Your task to perform on an android device: Search for "acer nitro" on newegg.com, select the first entry, add it to the cart, then select checkout. Image 0: 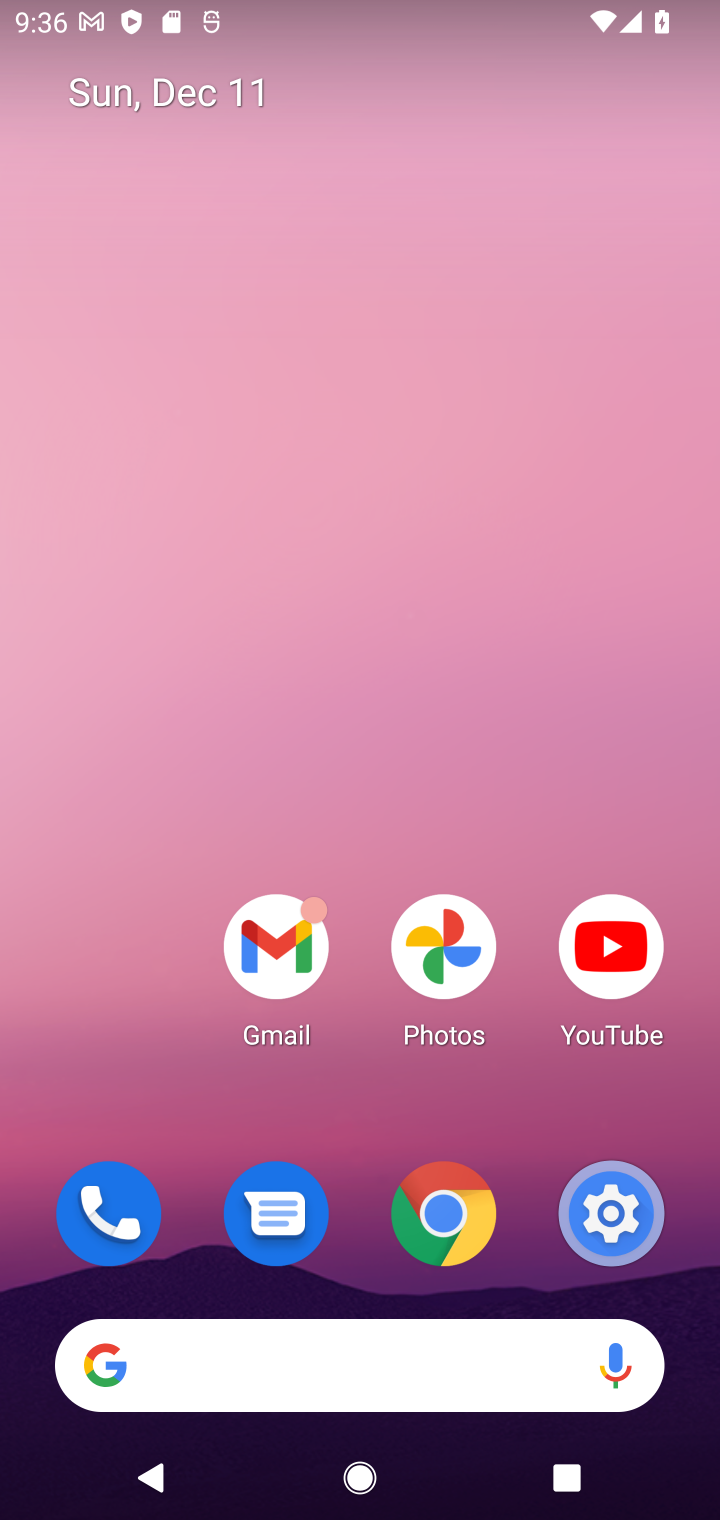
Step 0: click (444, 1354)
Your task to perform on an android device: Search for "acer nitro" on newegg.com, select the first entry, add it to the cart, then select checkout. Image 1: 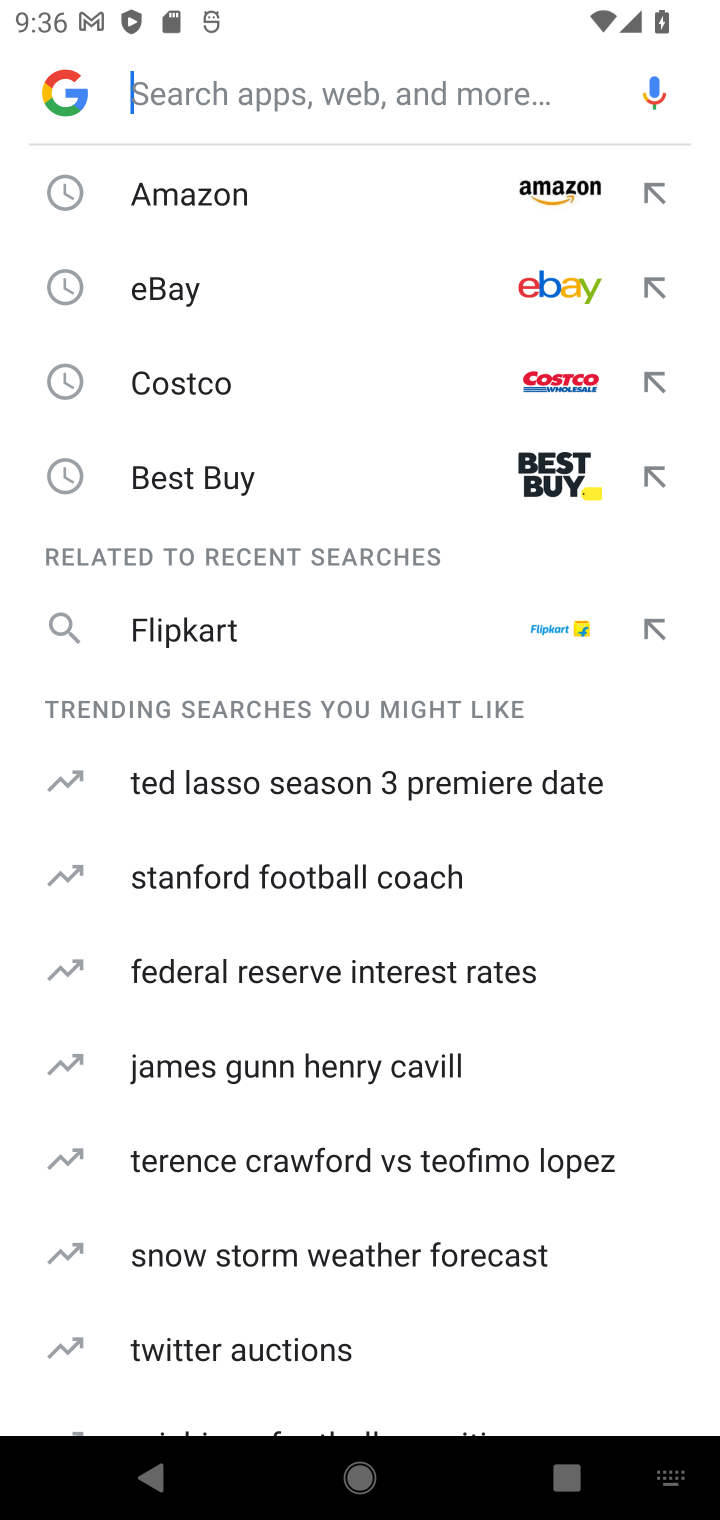
Step 1: type "newegg"
Your task to perform on an android device: Search for "acer nitro" on newegg.com, select the first entry, add it to the cart, then select checkout. Image 2: 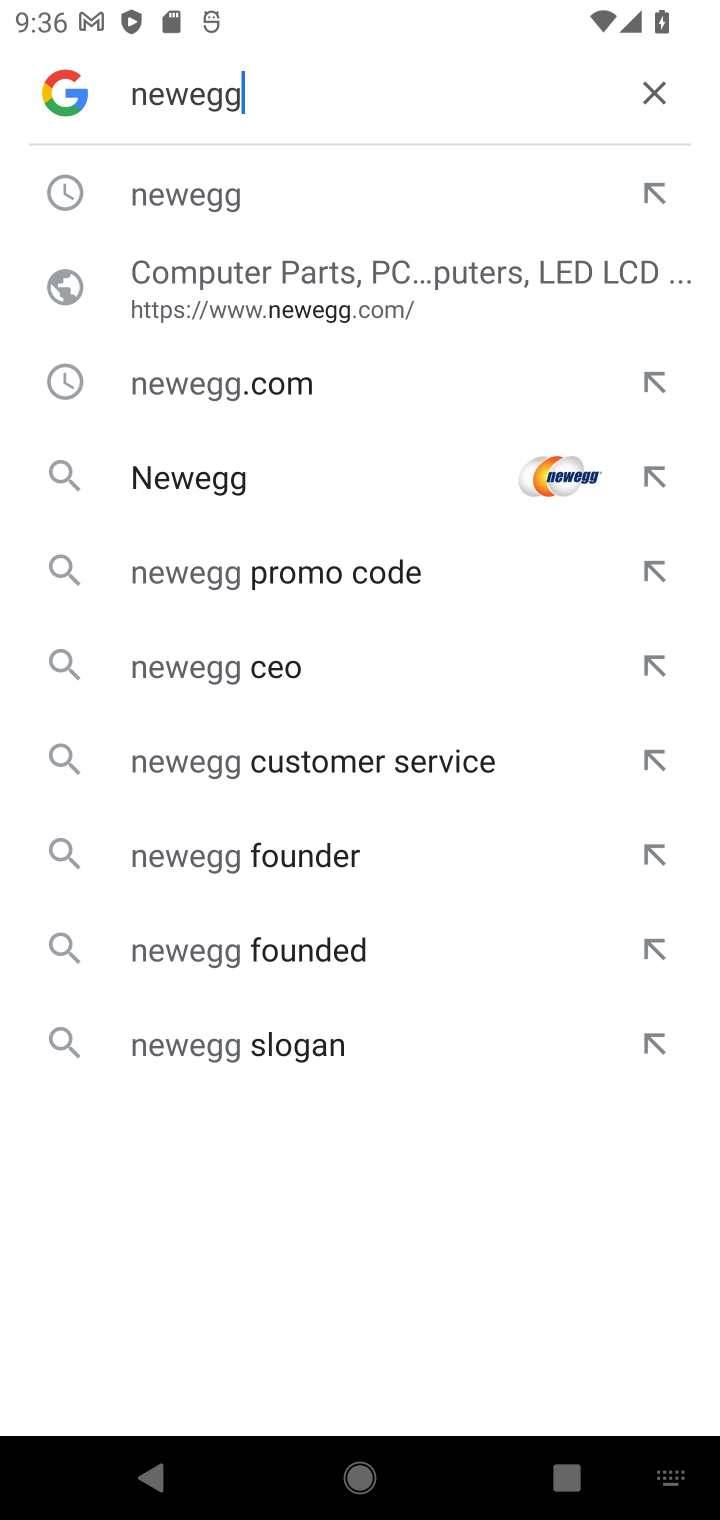
Step 2: click (207, 184)
Your task to perform on an android device: Search for "acer nitro" on newegg.com, select the first entry, add it to the cart, then select checkout. Image 3: 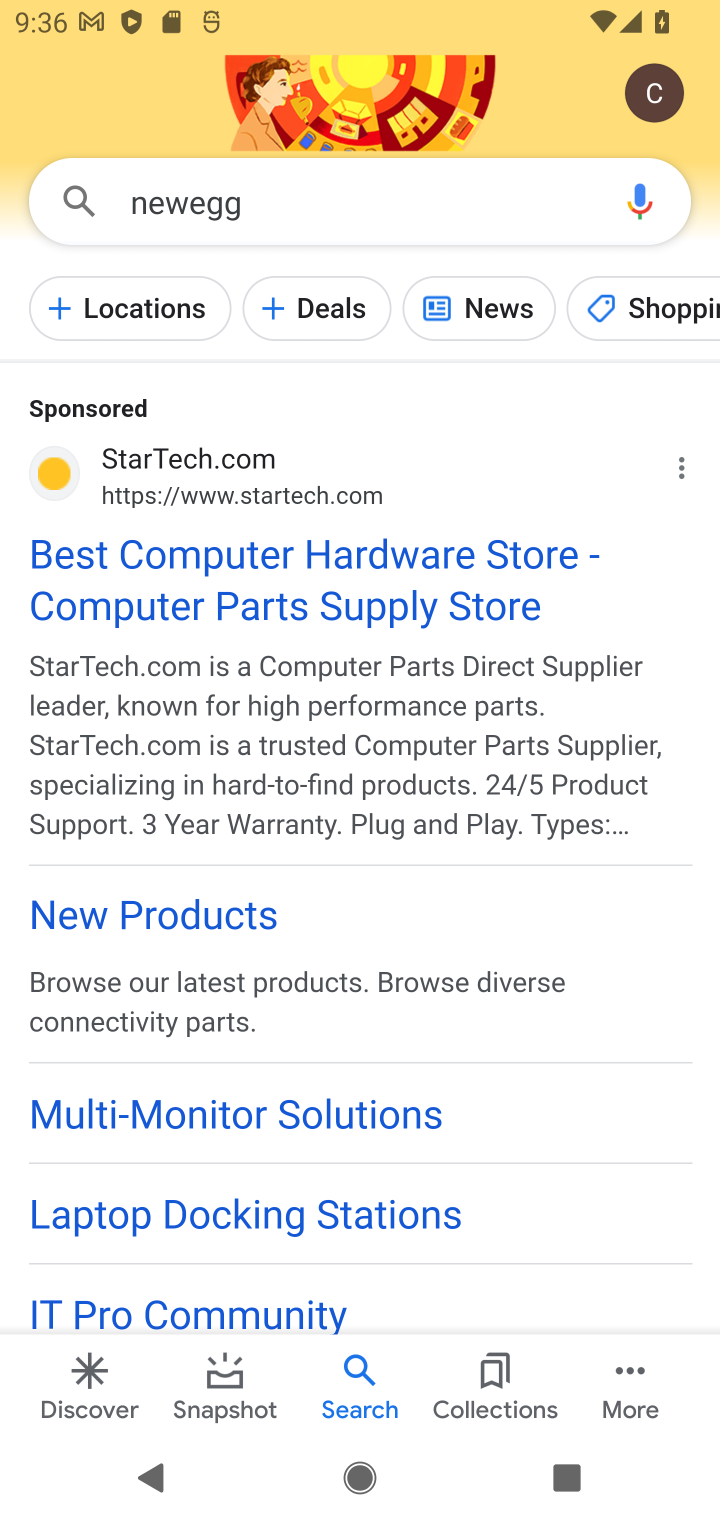
Step 3: click (159, 614)
Your task to perform on an android device: Search for "acer nitro" on newegg.com, select the first entry, add it to the cart, then select checkout. Image 4: 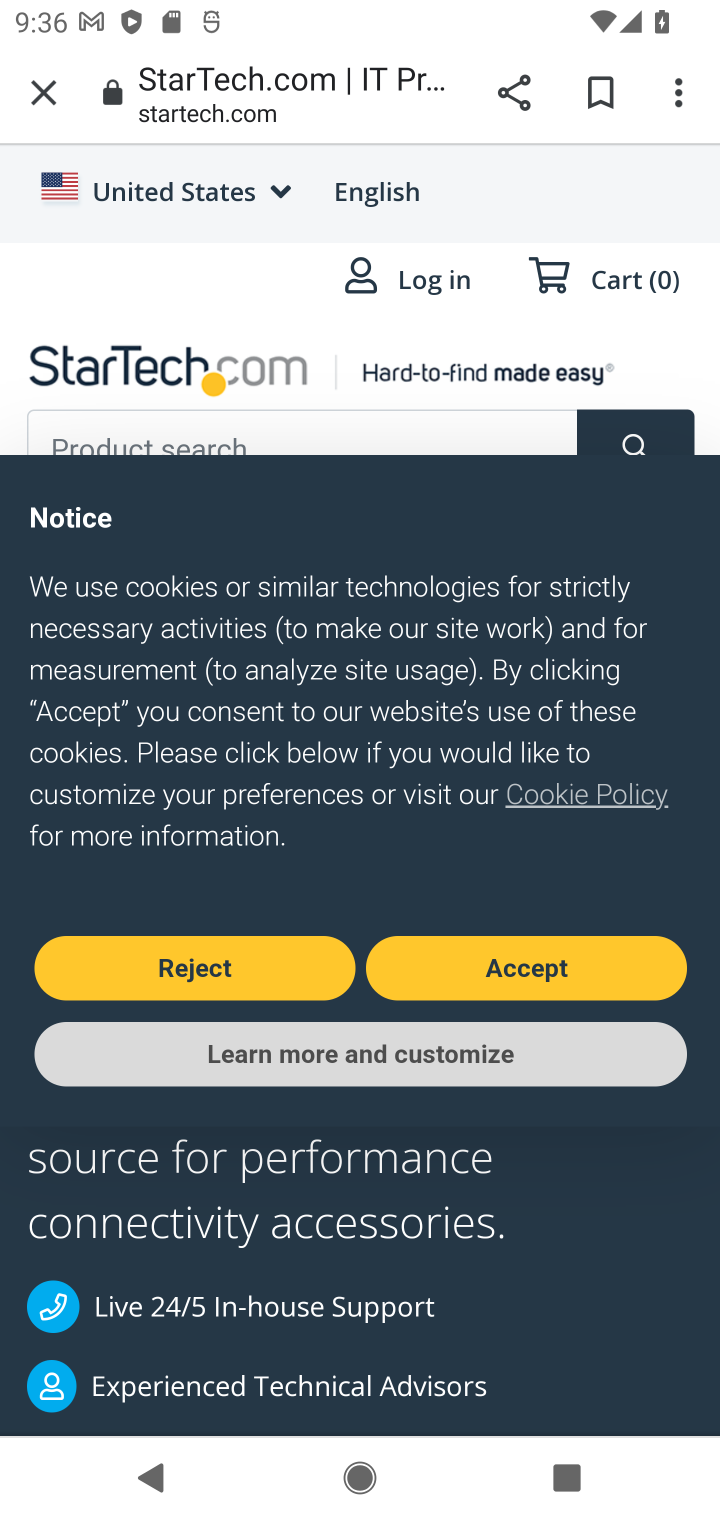
Step 4: click (20, 109)
Your task to perform on an android device: Search for "acer nitro" on newegg.com, select the first entry, add it to the cart, then select checkout. Image 5: 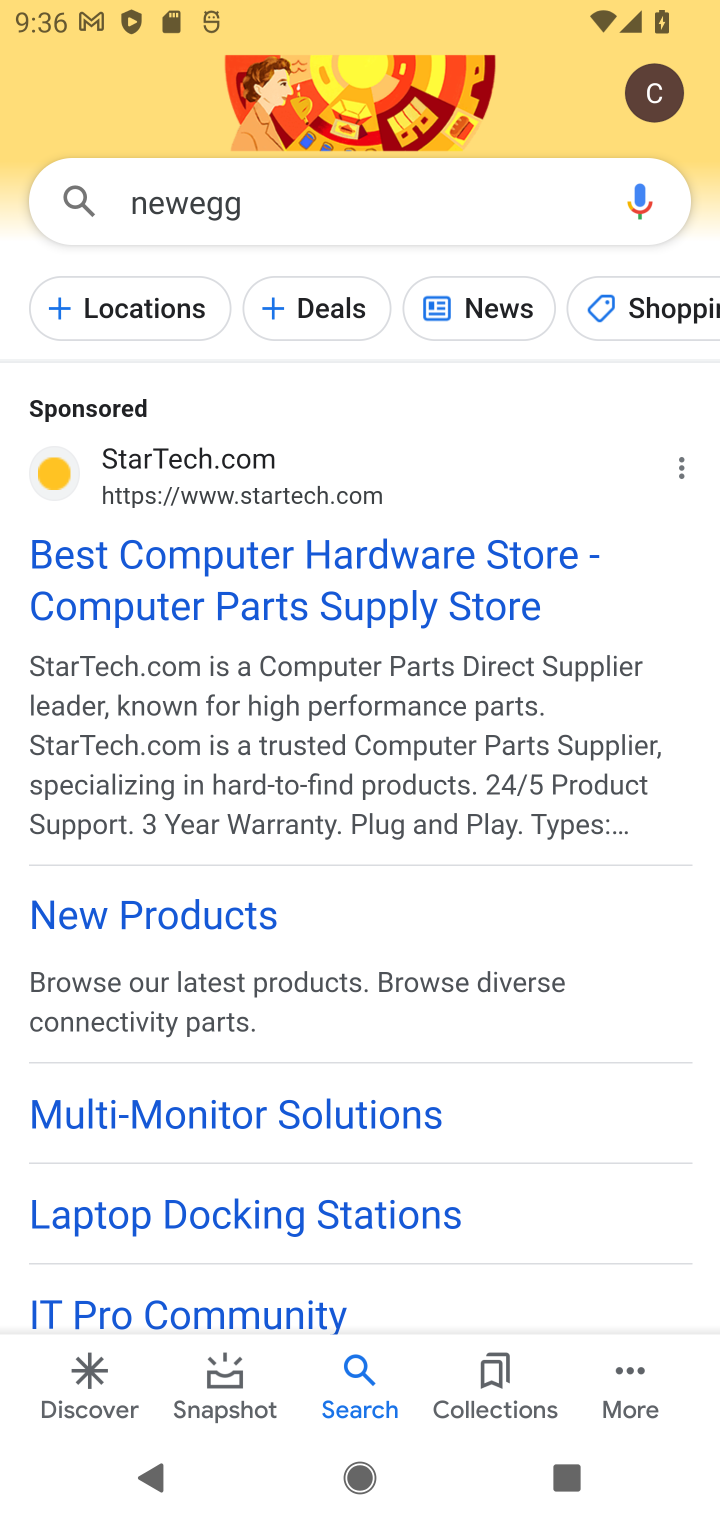
Step 5: drag from (229, 1056) to (263, 535)
Your task to perform on an android device: Search for "acer nitro" on newegg.com, select the first entry, add it to the cart, then select checkout. Image 6: 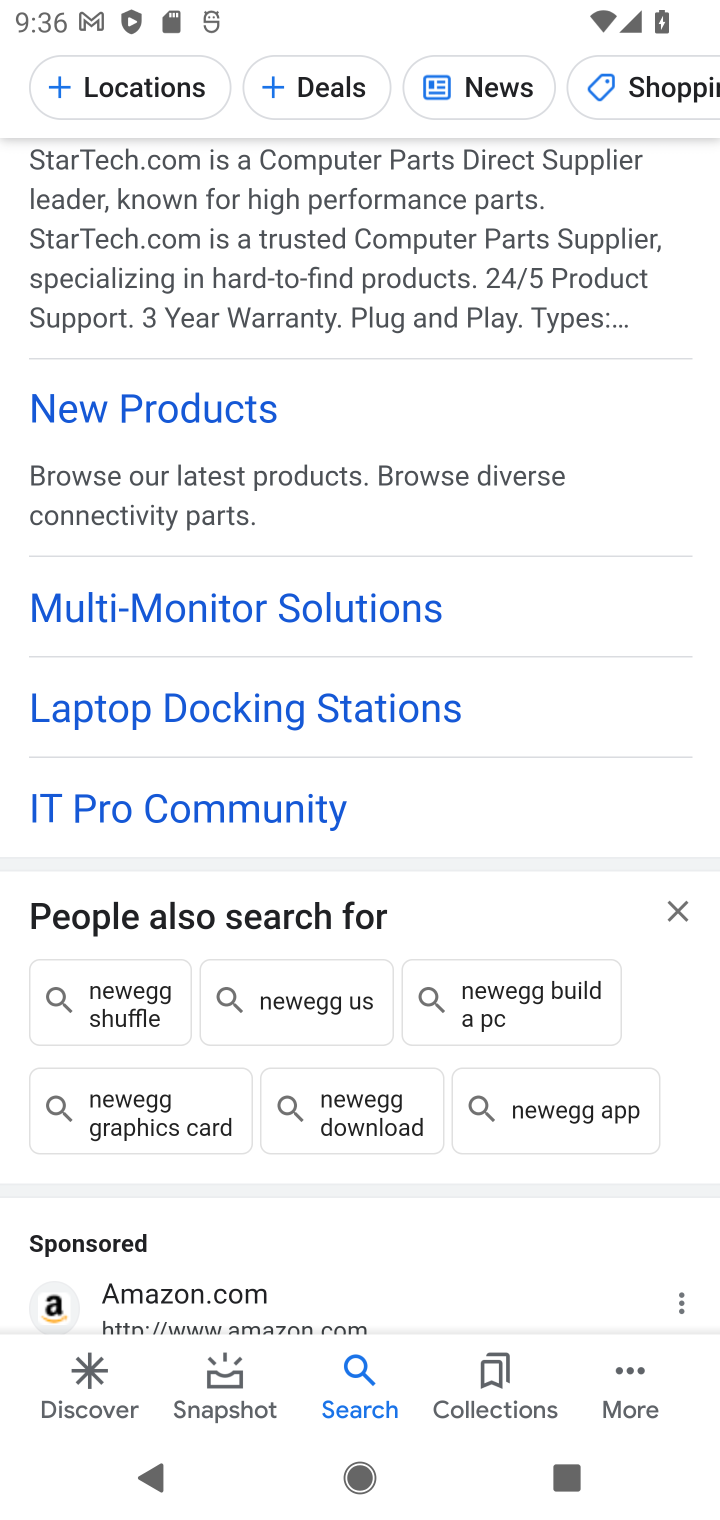
Step 6: drag from (324, 1254) to (328, 906)
Your task to perform on an android device: Search for "acer nitro" on newegg.com, select the first entry, add it to the cart, then select checkout. Image 7: 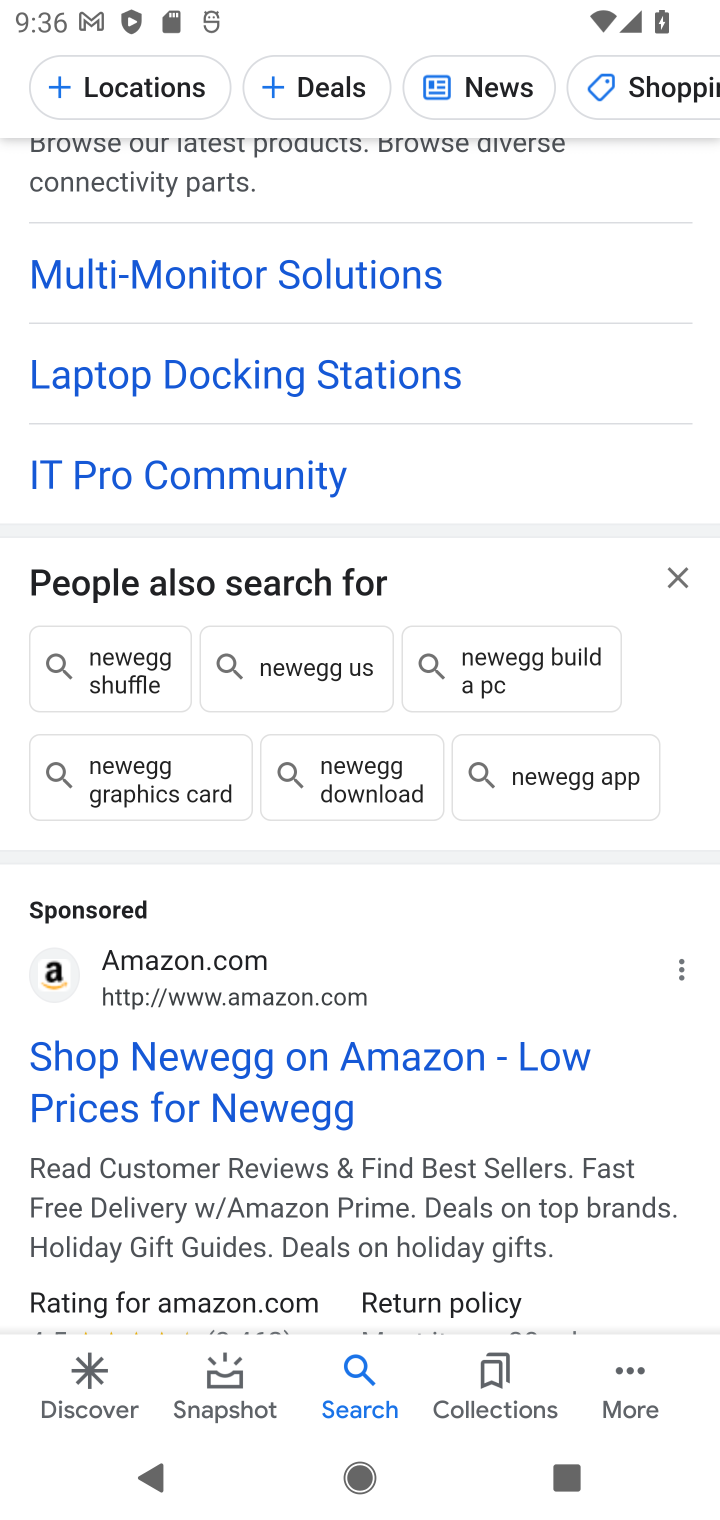
Step 7: click (264, 1042)
Your task to perform on an android device: Search for "acer nitro" on newegg.com, select the first entry, add it to the cart, then select checkout. Image 8: 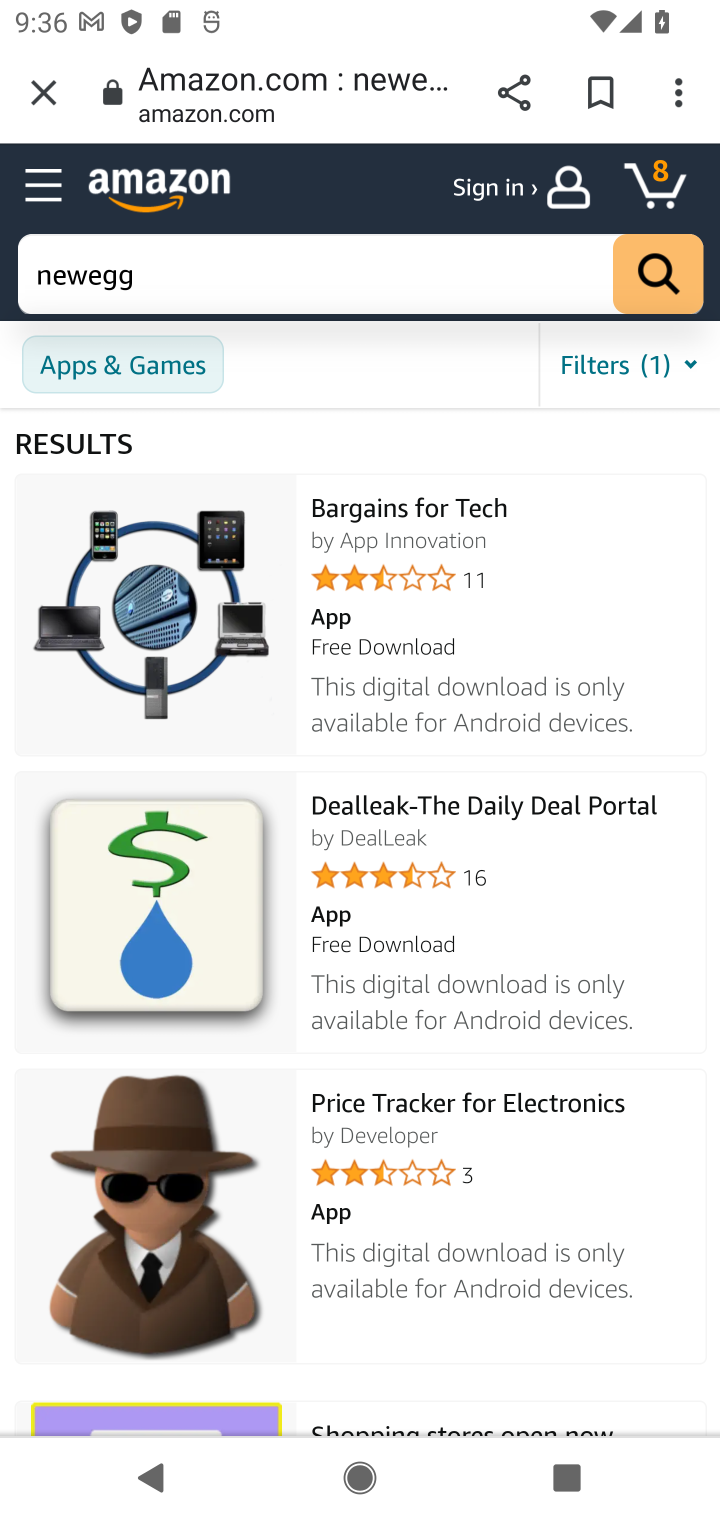
Step 8: press home button
Your task to perform on an android device: Search for "acer nitro" on newegg.com, select the first entry, add it to the cart, then select checkout. Image 9: 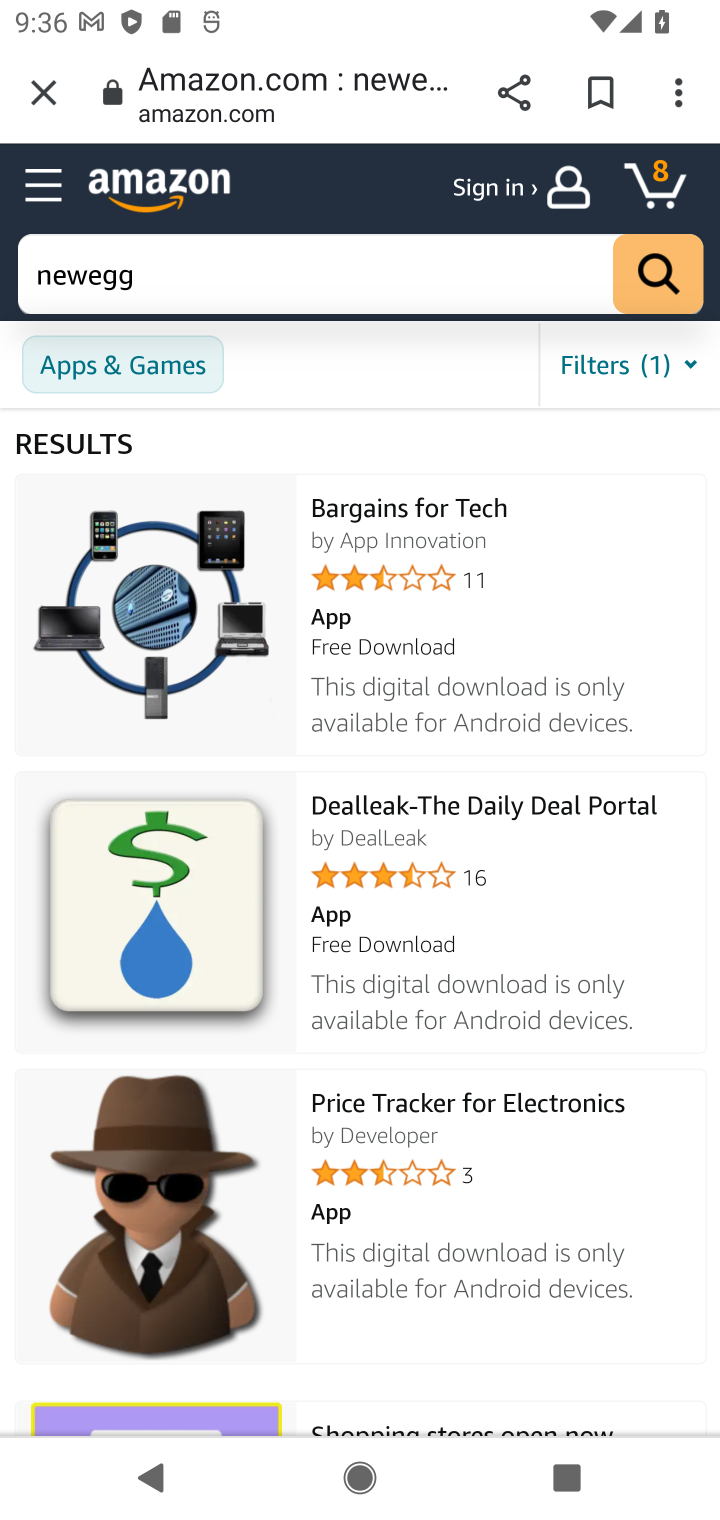
Step 9: press home button
Your task to perform on an android device: Search for "acer nitro" on newegg.com, select the first entry, add it to the cart, then select checkout. Image 10: 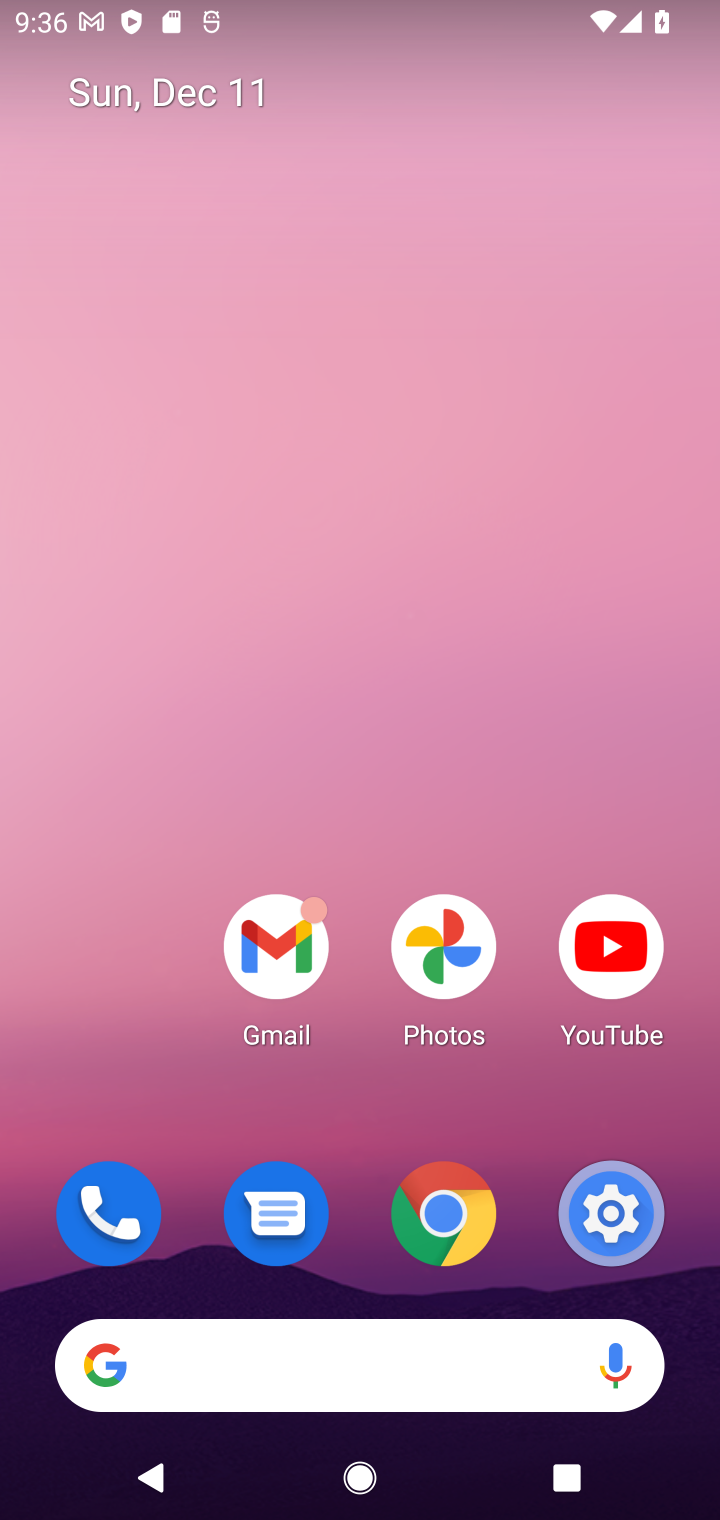
Step 10: click (259, 1357)
Your task to perform on an android device: Search for "acer nitro" on newegg.com, select the first entry, add it to the cart, then select checkout. Image 11: 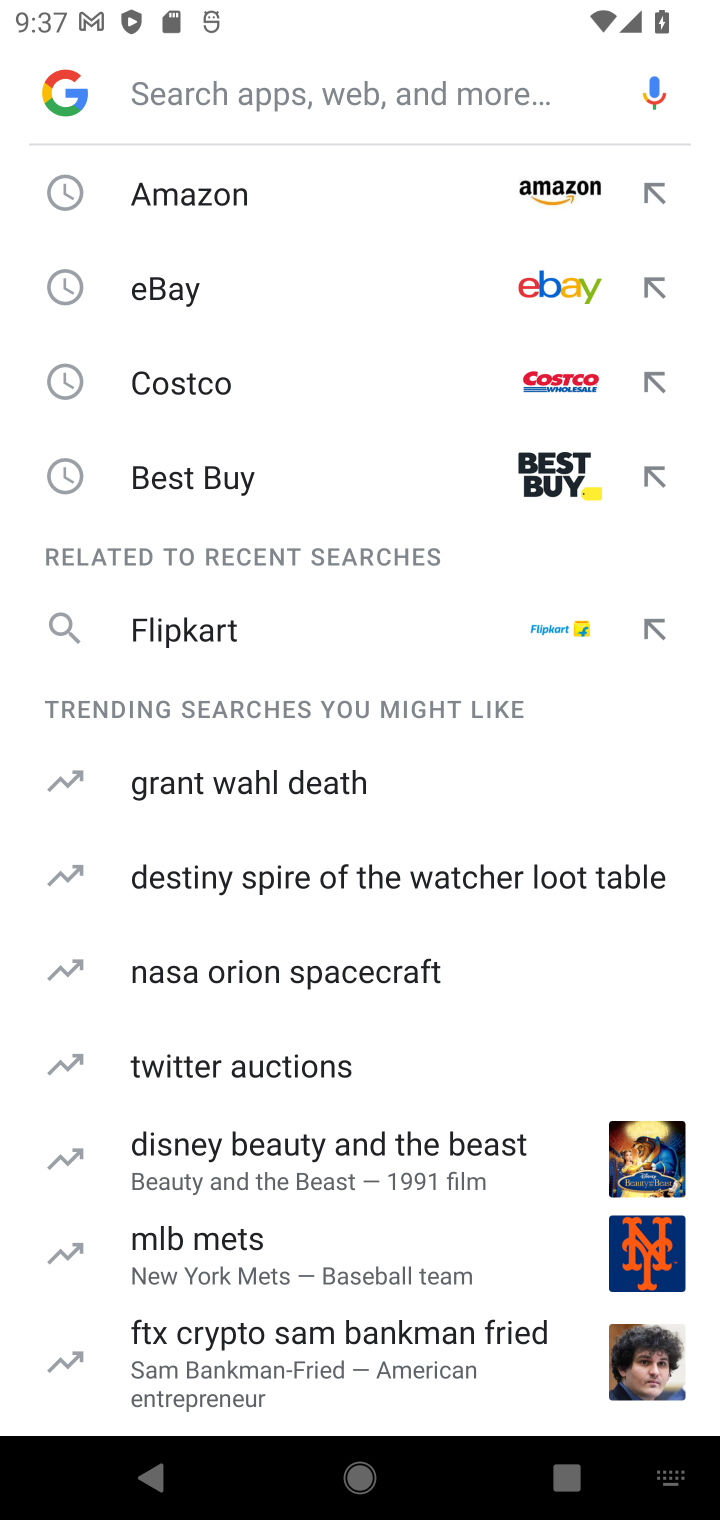
Step 11: type "newegg"
Your task to perform on an android device: Search for "acer nitro" on newegg.com, select the first entry, add it to the cart, then select checkout. Image 12: 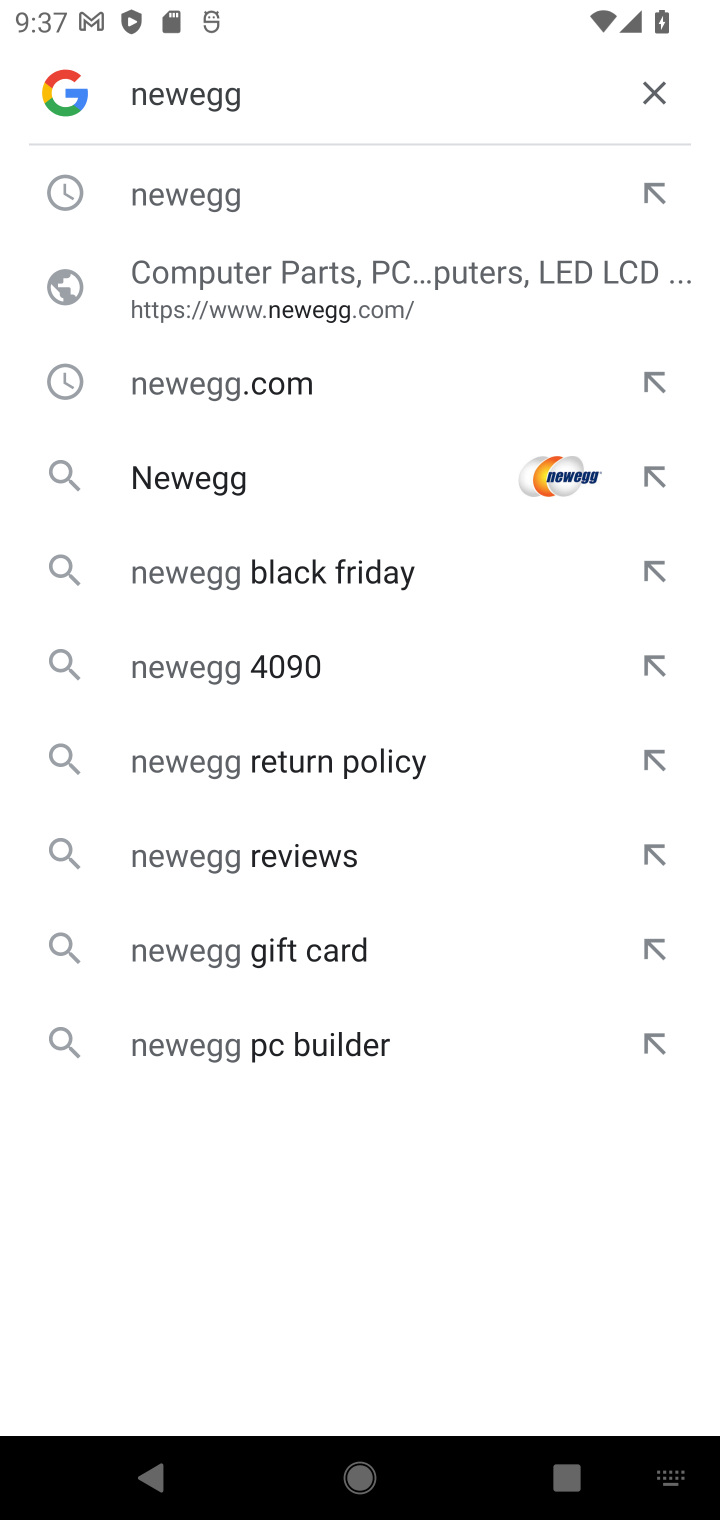
Step 12: click (334, 274)
Your task to perform on an android device: Search for "acer nitro" on newegg.com, select the first entry, add it to the cart, then select checkout. Image 13: 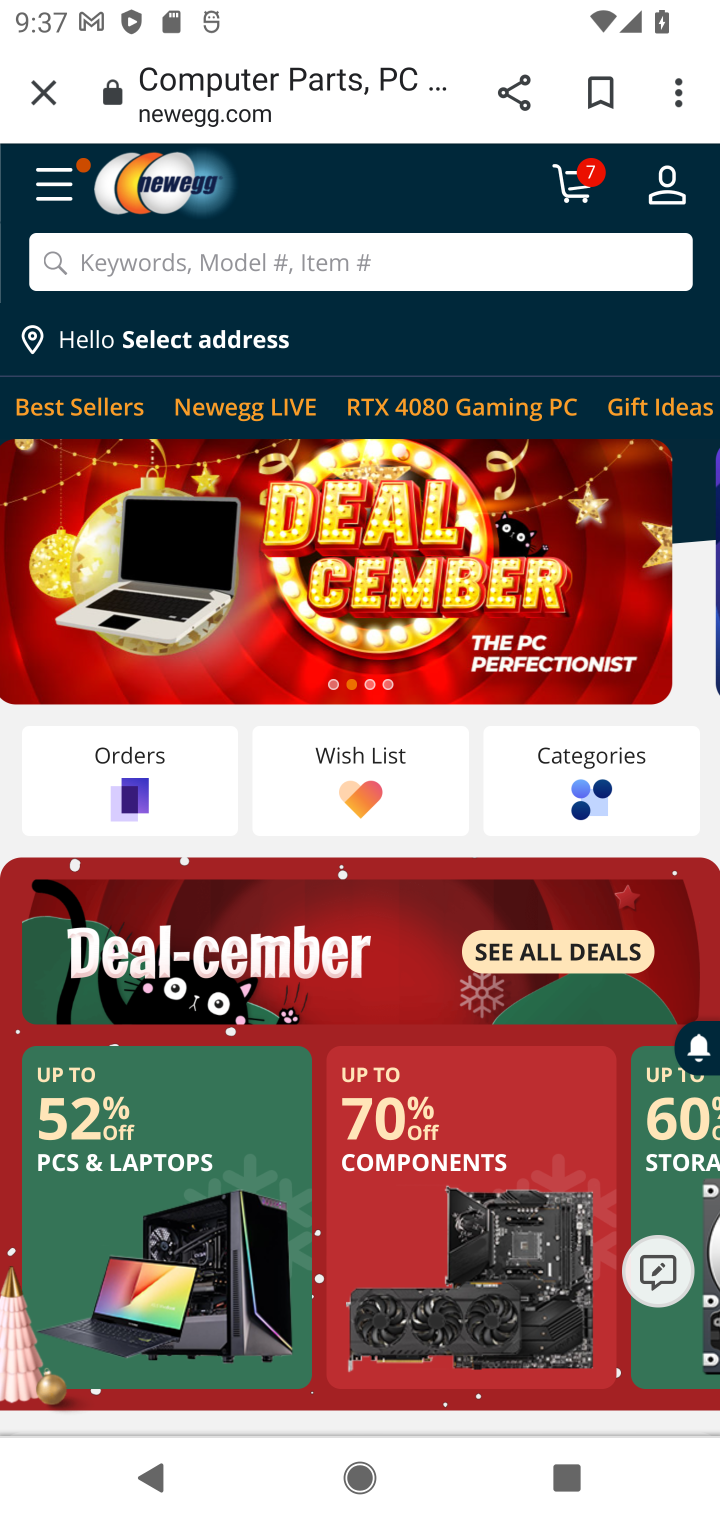
Step 13: click (334, 274)
Your task to perform on an android device: Search for "acer nitro" on newegg.com, select the first entry, add it to the cart, then select checkout. Image 14: 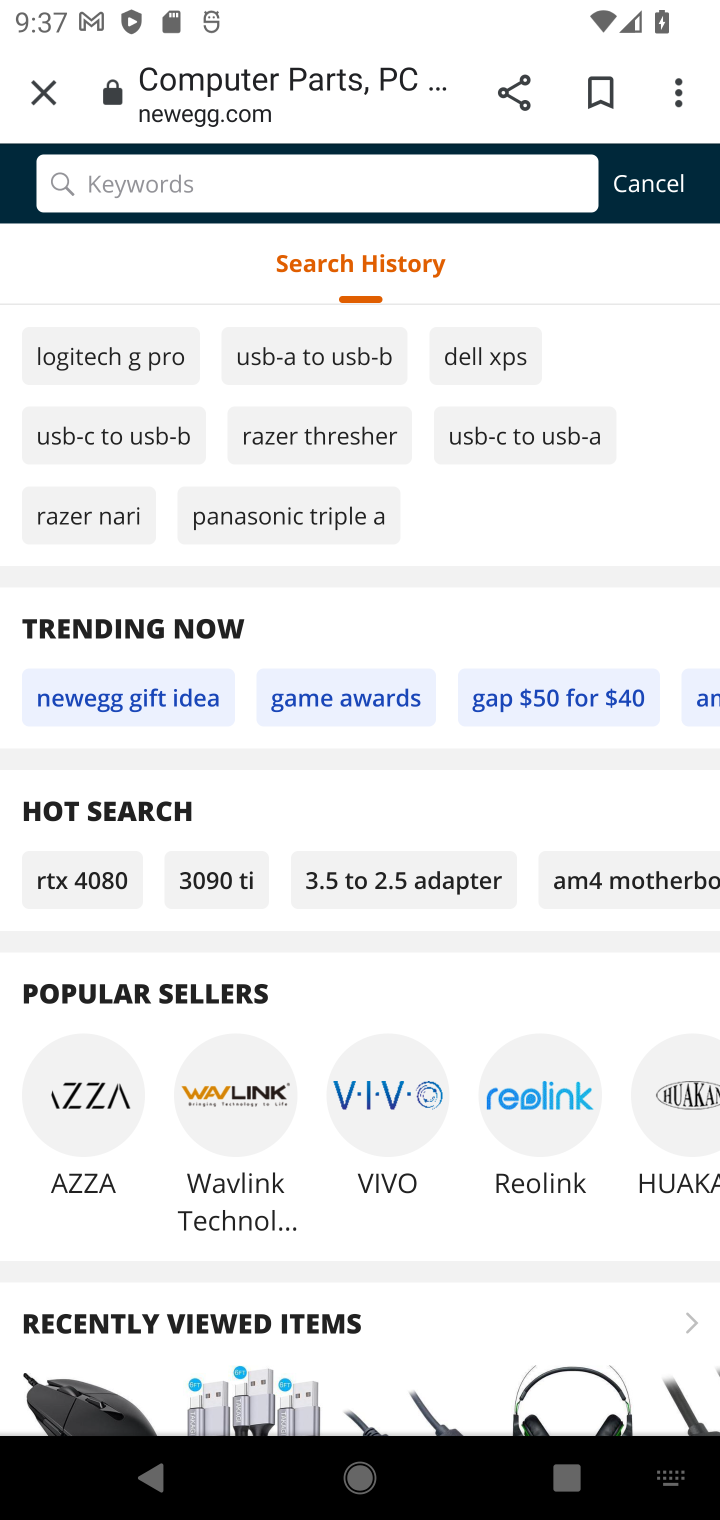
Step 14: type "acer nitro"
Your task to perform on an android device: Search for "acer nitro" on newegg.com, select the first entry, add it to the cart, then select checkout. Image 15: 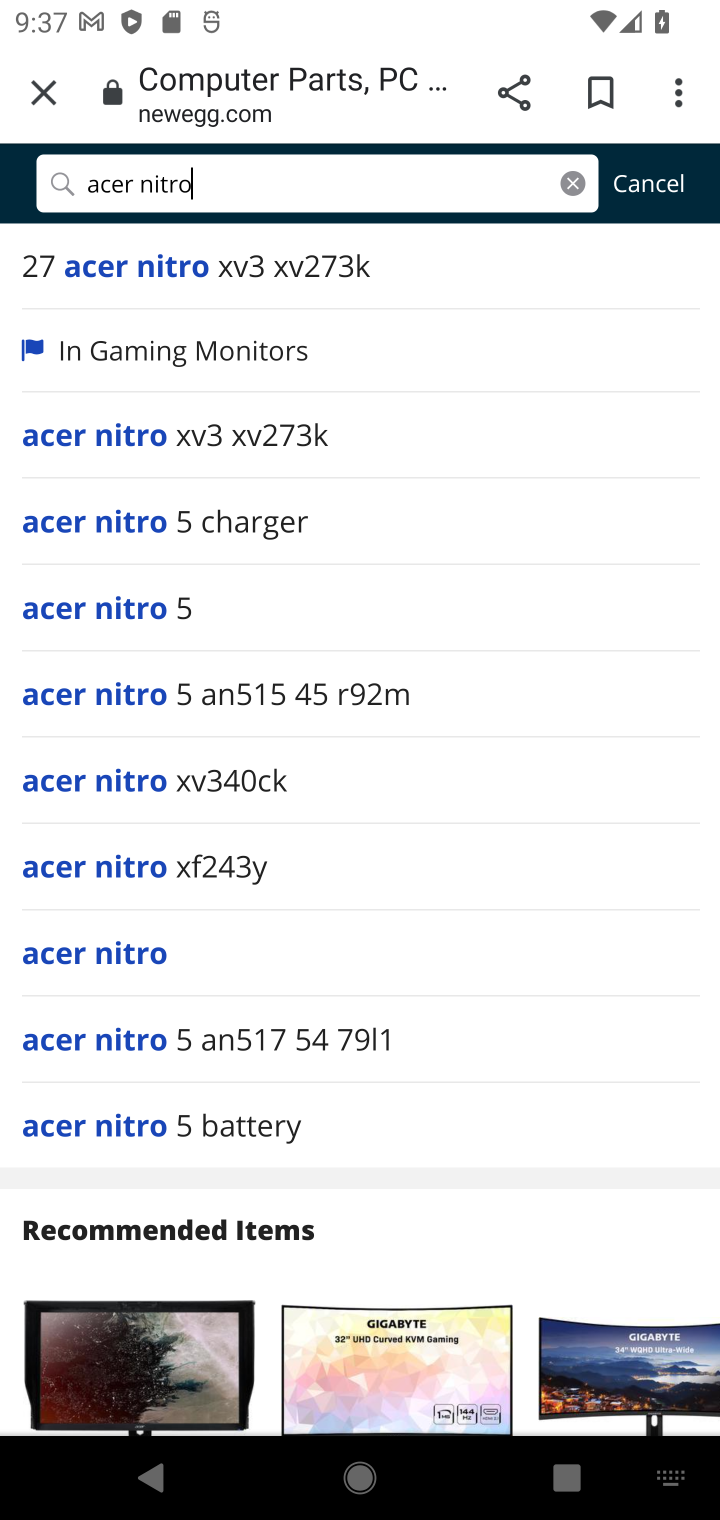
Step 15: click (238, 438)
Your task to perform on an android device: Search for "acer nitro" on newegg.com, select the first entry, add it to the cart, then select checkout. Image 16: 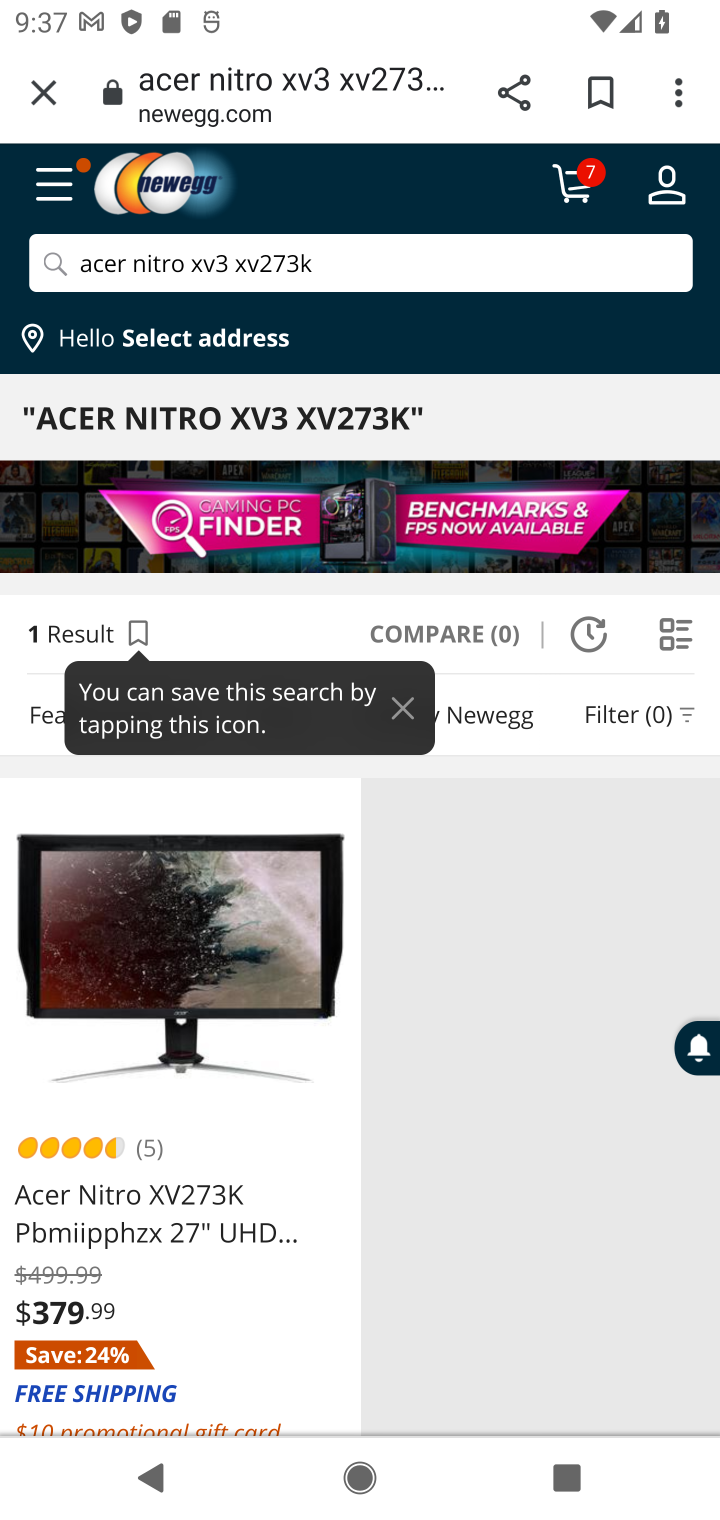
Step 16: click (146, 1190)
Your task to perform on an android device: Search for "acer nitro" on newegg.com, select the first entry, add it to the cart, then select checkout. Image 17: 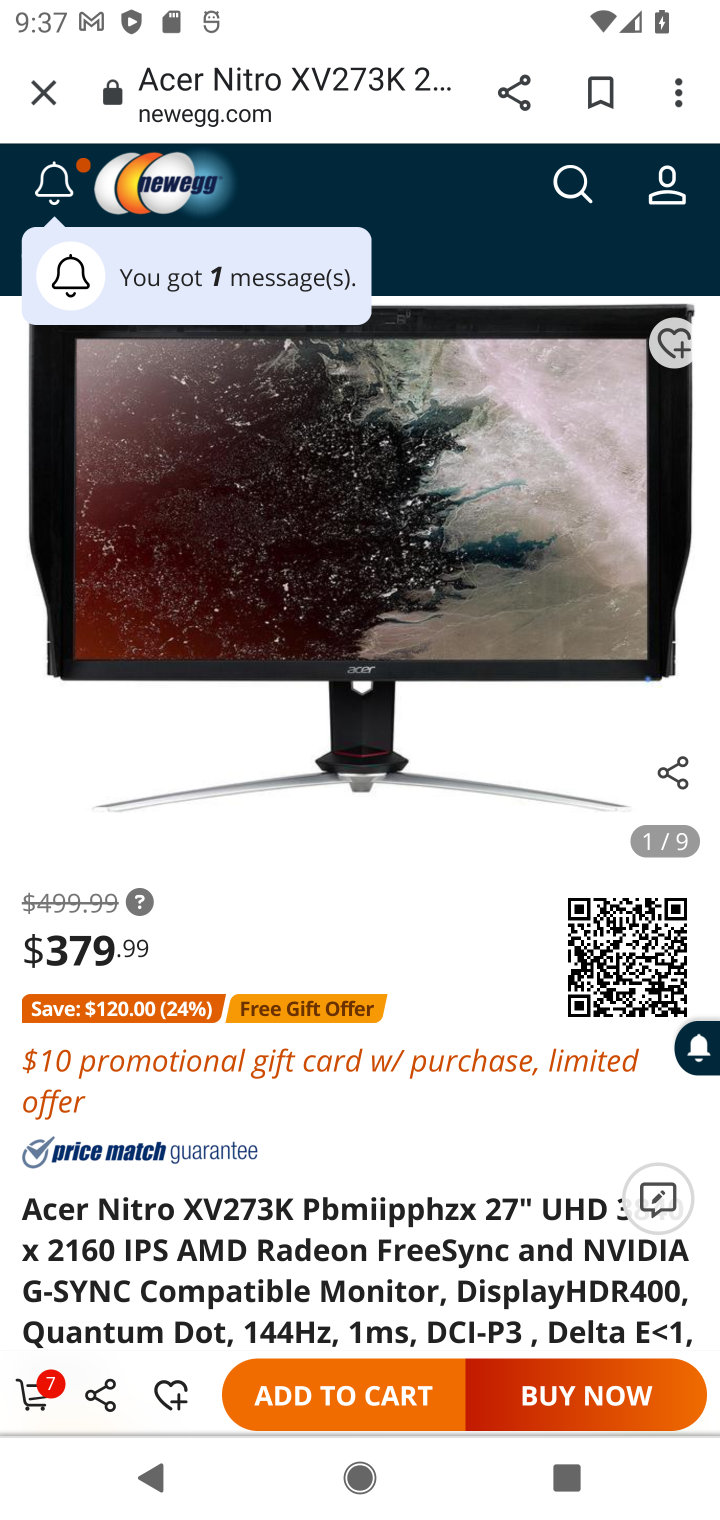
Step 17: click (281, 1382)
Your task to perform on an android device: Search for "acer nitro" on newegg.com, select the first entry, add it to the cart, then select checkout. Image 18: 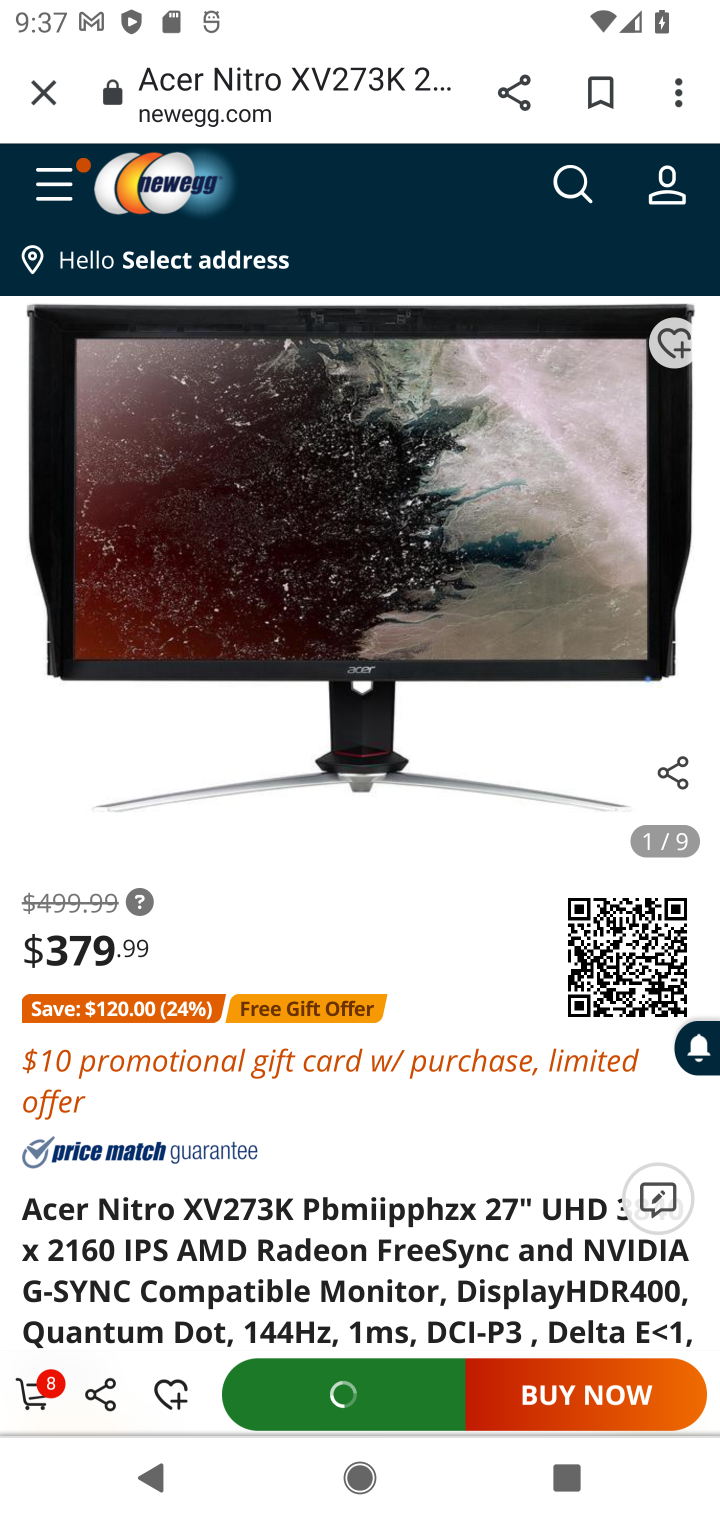
Step 18: task complete